Your task to perform on an android device: find photos in the google photos app Image 0: 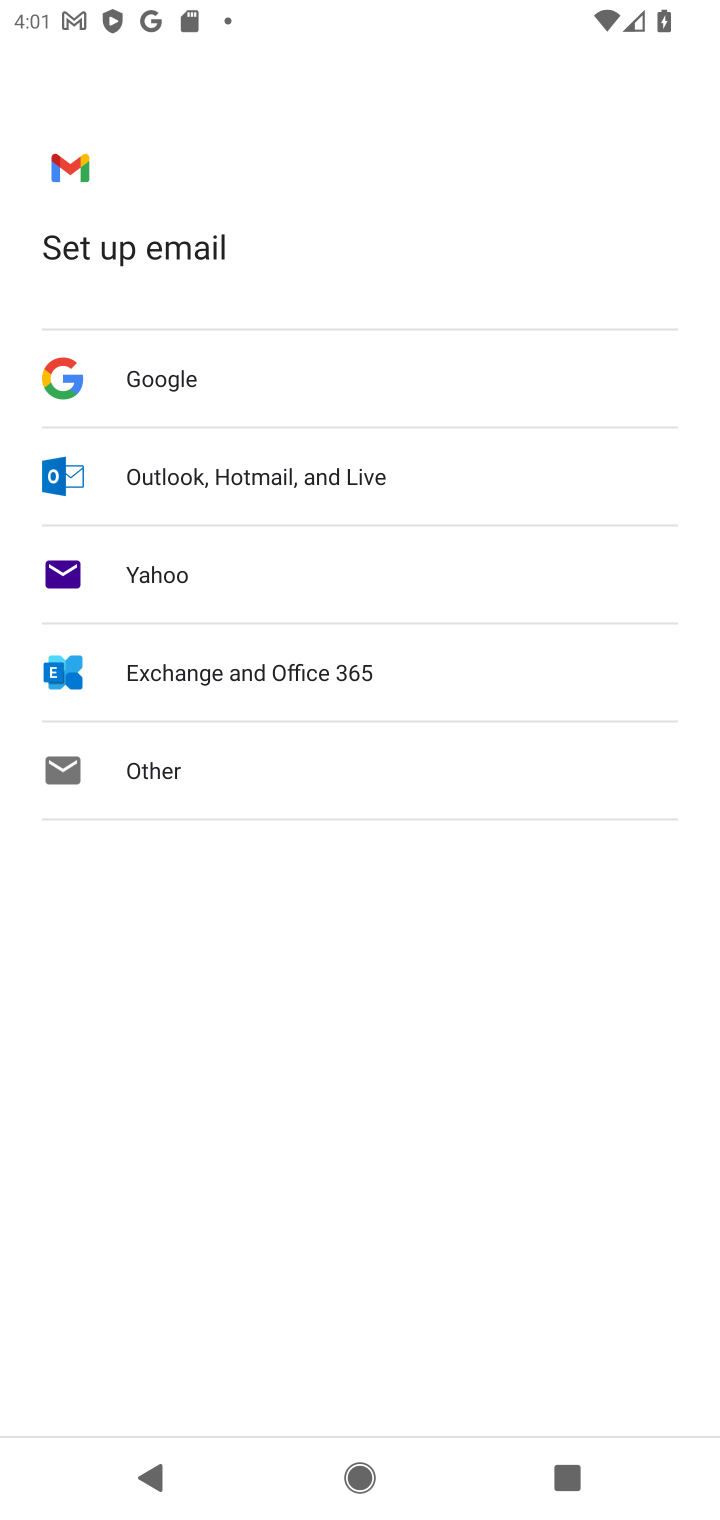
Step 0: press home button
Your task to perform on an android device: find photos in the google photos app Image 1: 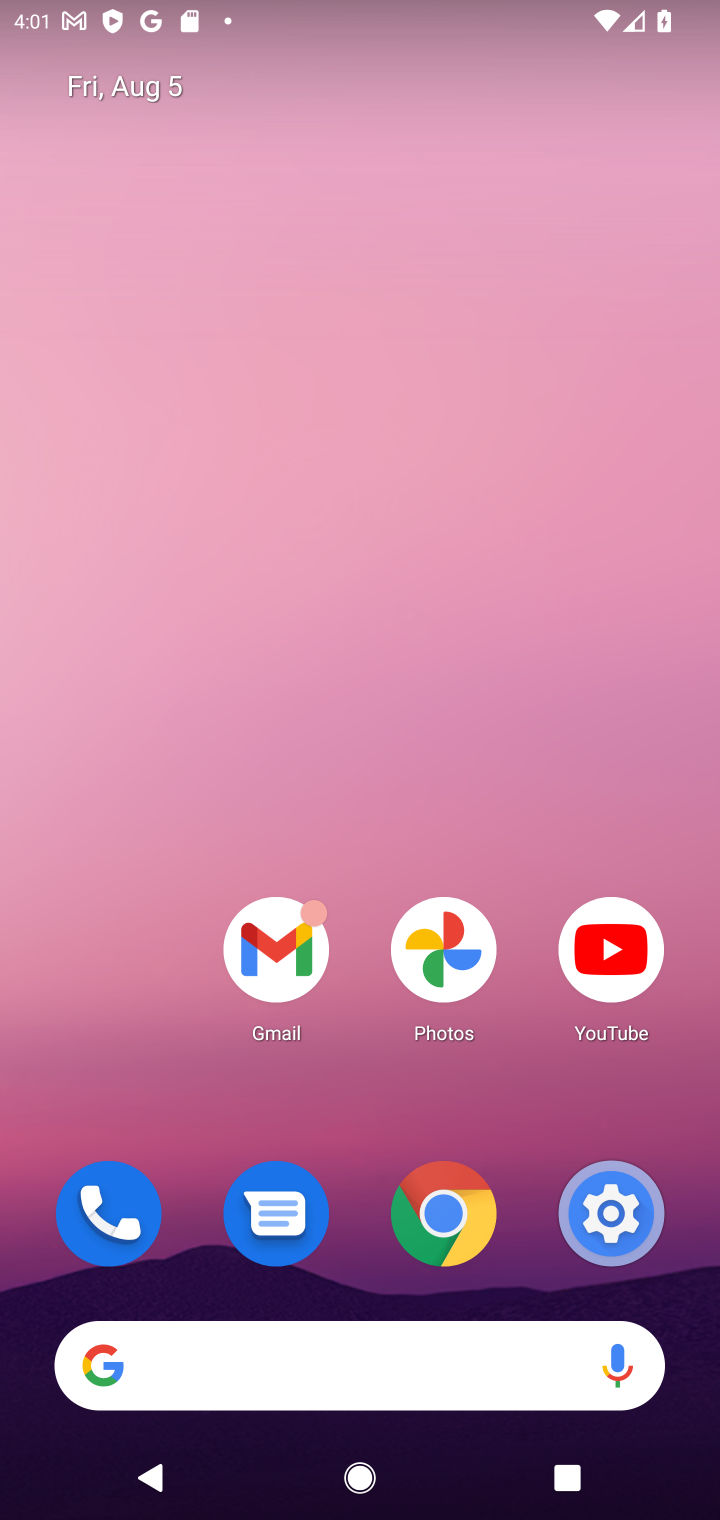
Step 1: click (434, 979)
Your task to perform on an android device: find photos in the google photos app Image 2: 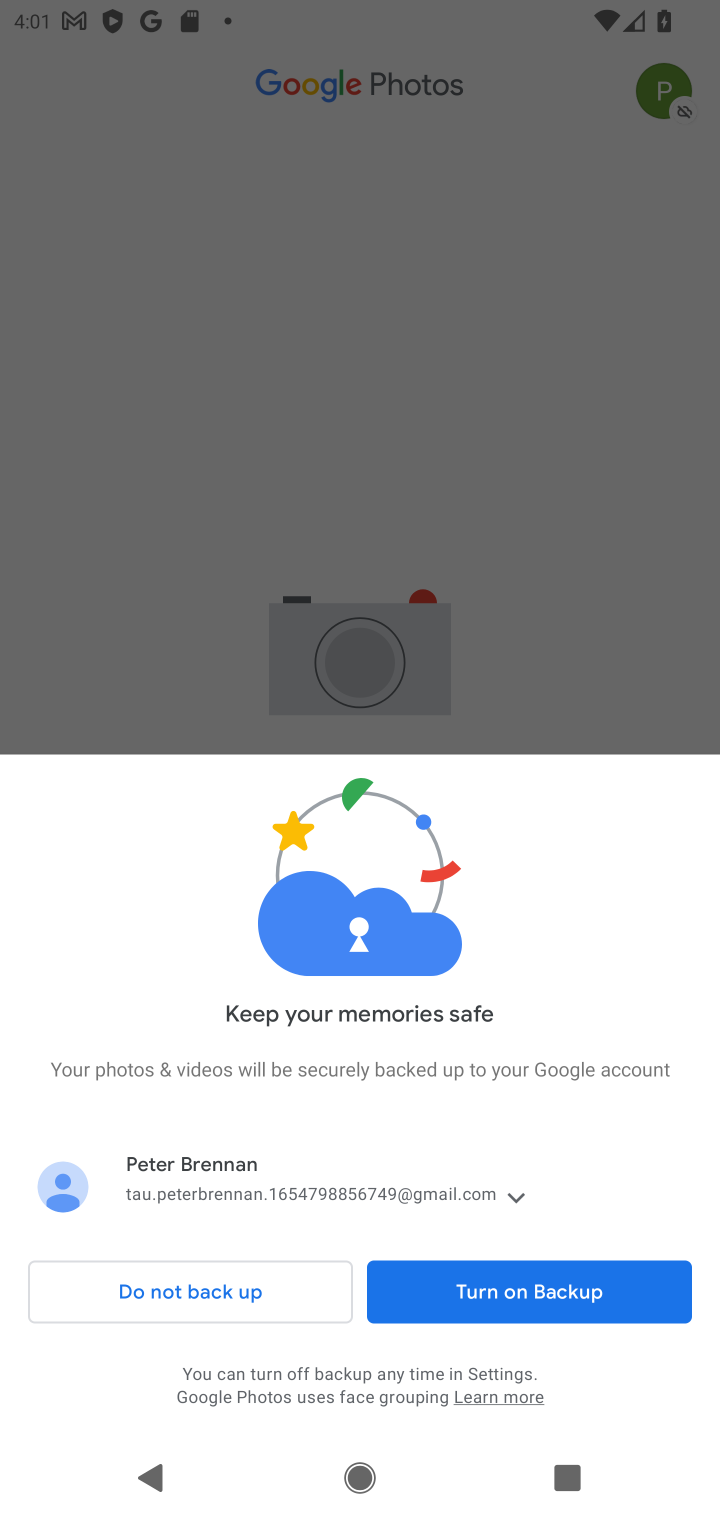
Step 2: click (318, 1254)
Your task to perform on an android device: find photos in the google photos app Image 3: 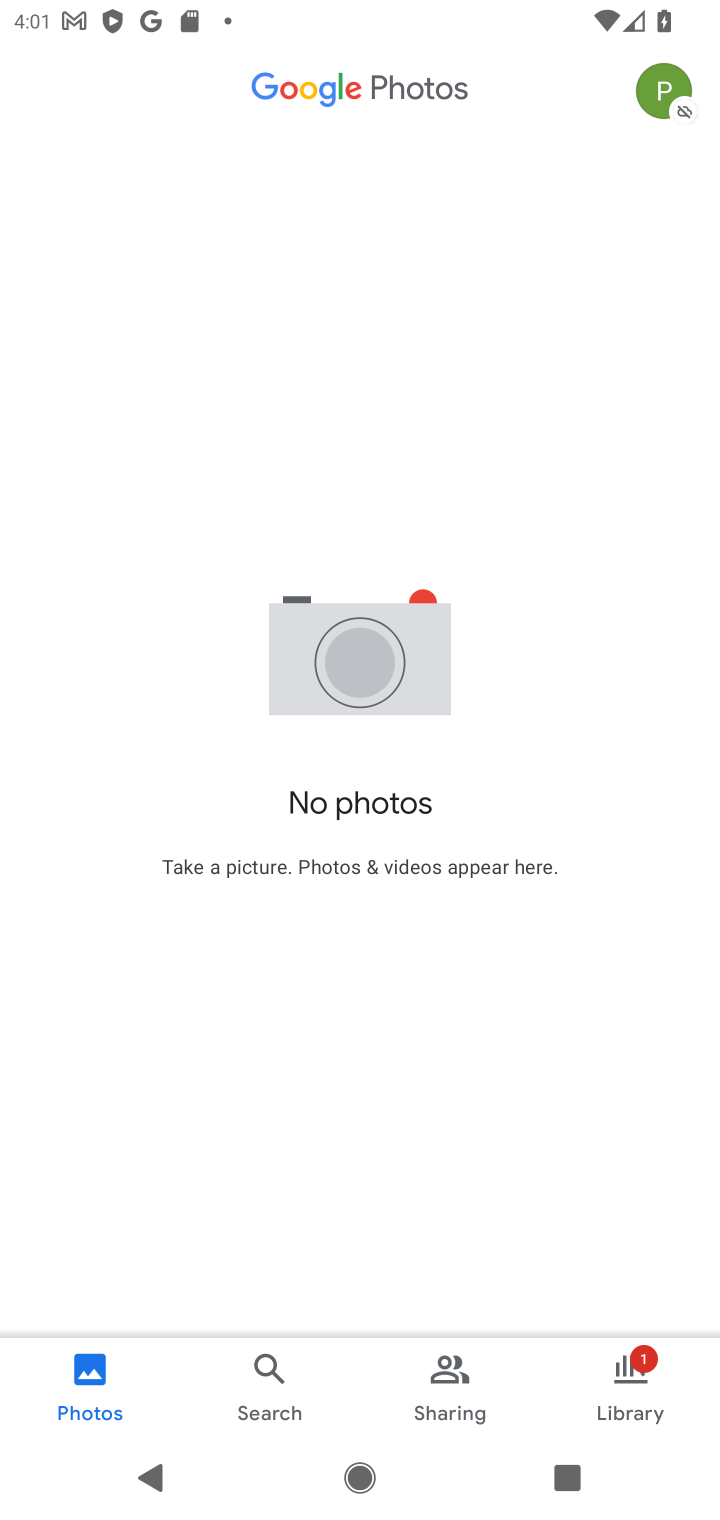
Step 3: task complete